Your task to perform on an android device: Add "bose soundlink" to the cart on walmart Image 0: 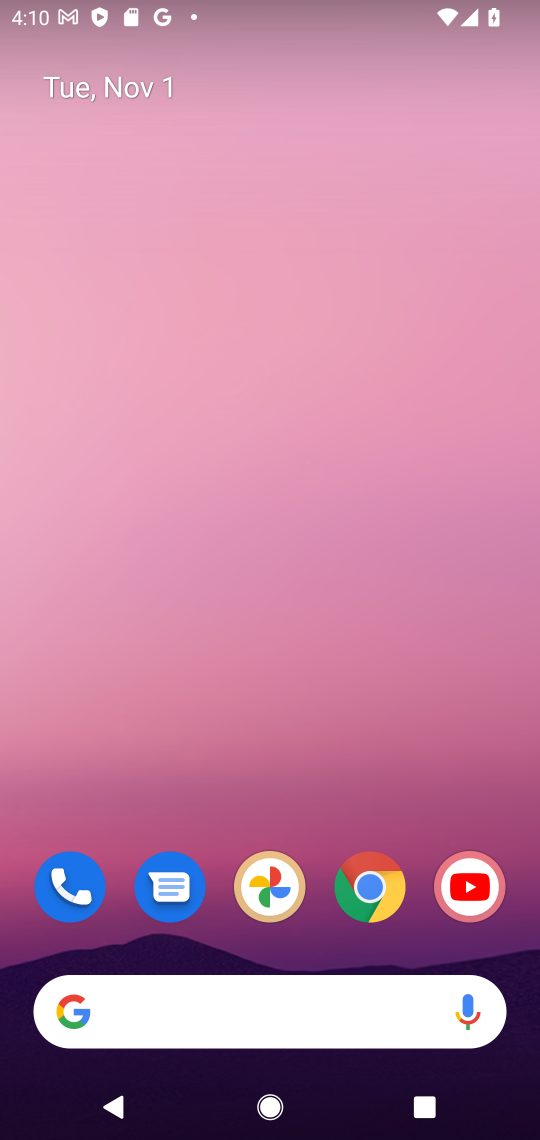
Step 0: drag from (327, 942) to (338, 130)
Your task to perform on an android device: Add "bose soundlink" to the cart on walmart Image 1: 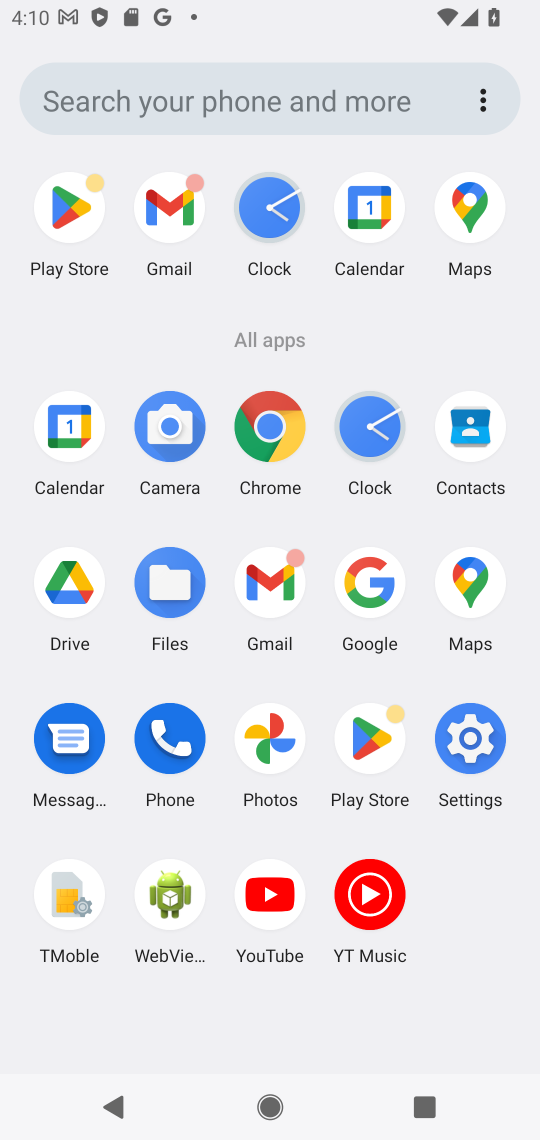
Step 1: click (279, 437)
Your task to perform on an android device: Add "bose soundlink" to the cart on walmart Image 2: 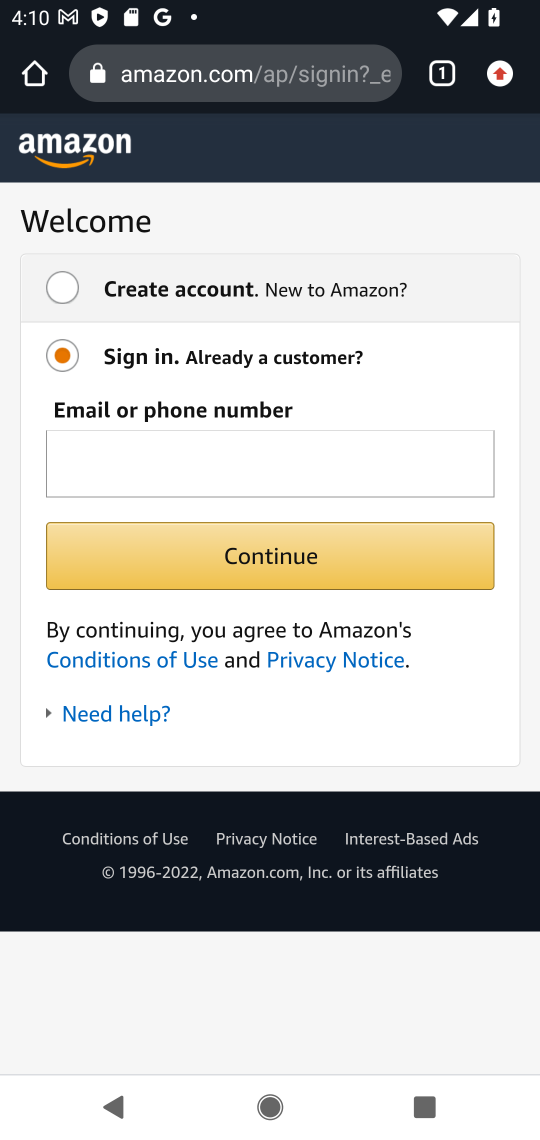
Step 2: click (297, 81)
Your task to perform on an android device: Add "bose soundlink" to the cart on walmart Image 3: 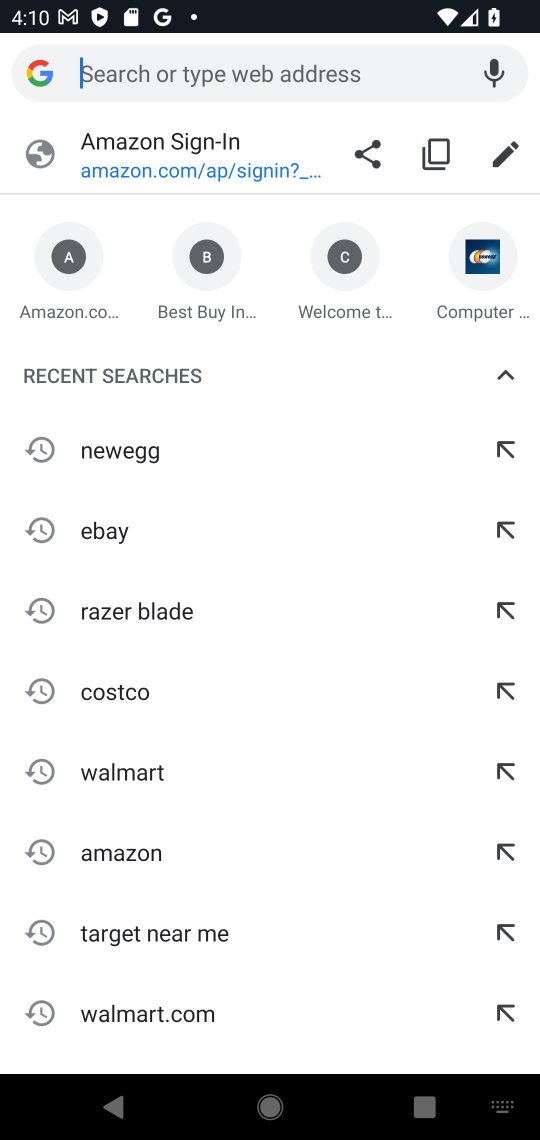
Step 3: type "walmart.com"
Your task to perform on an android device: Add "bose soundlink" to the cart on walmart Image 4: 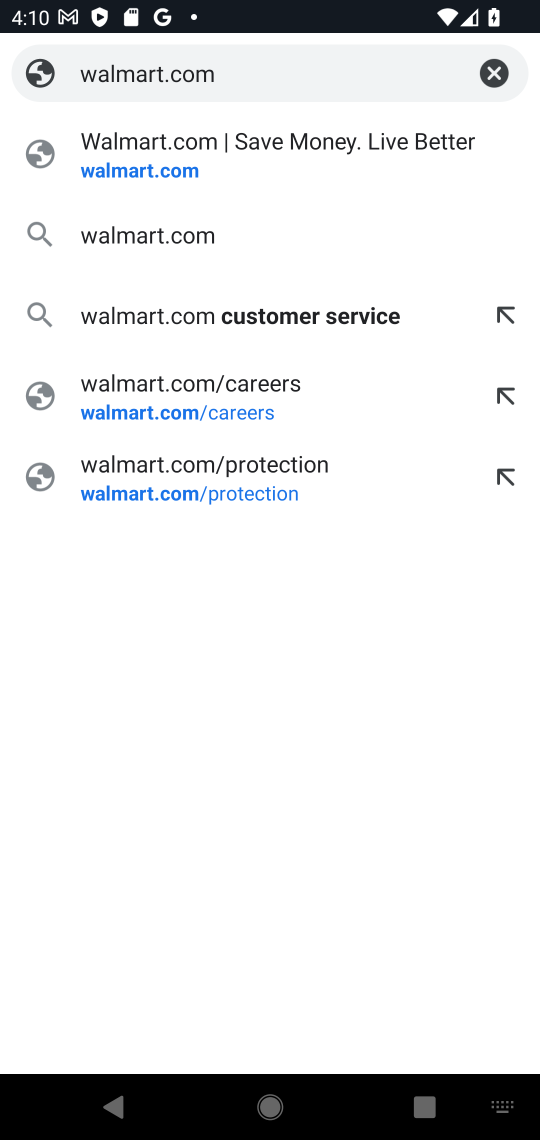
Step 4: press enter
Your task to perform on an android device: Add "bose soundlink" to the cart on walmart Image 5: 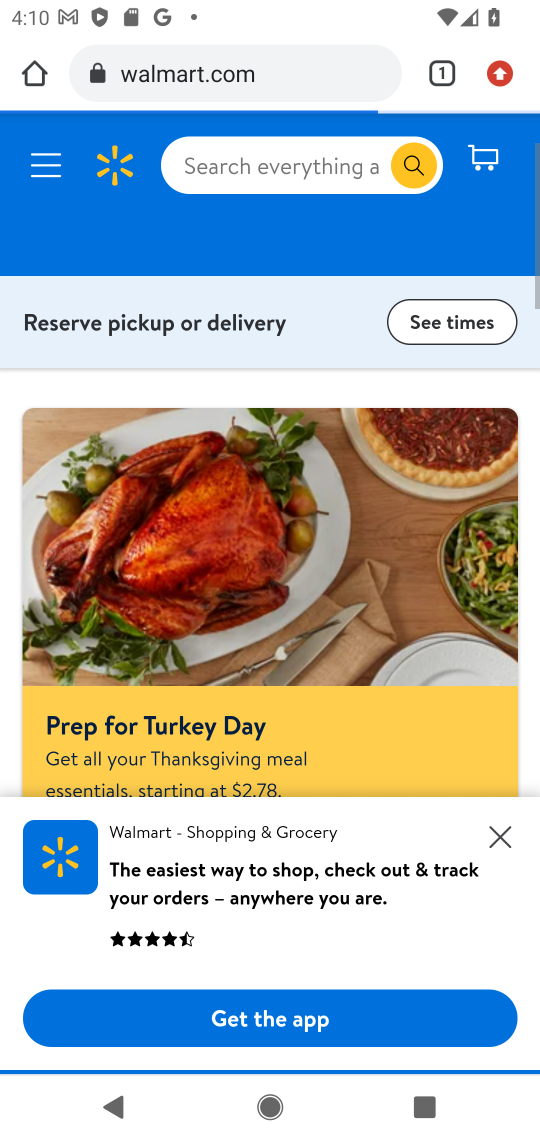
Step 5: click (316, 171)
Your task to perform on an android device: Add "bose soundlink" to the cart on walmart Image 6: 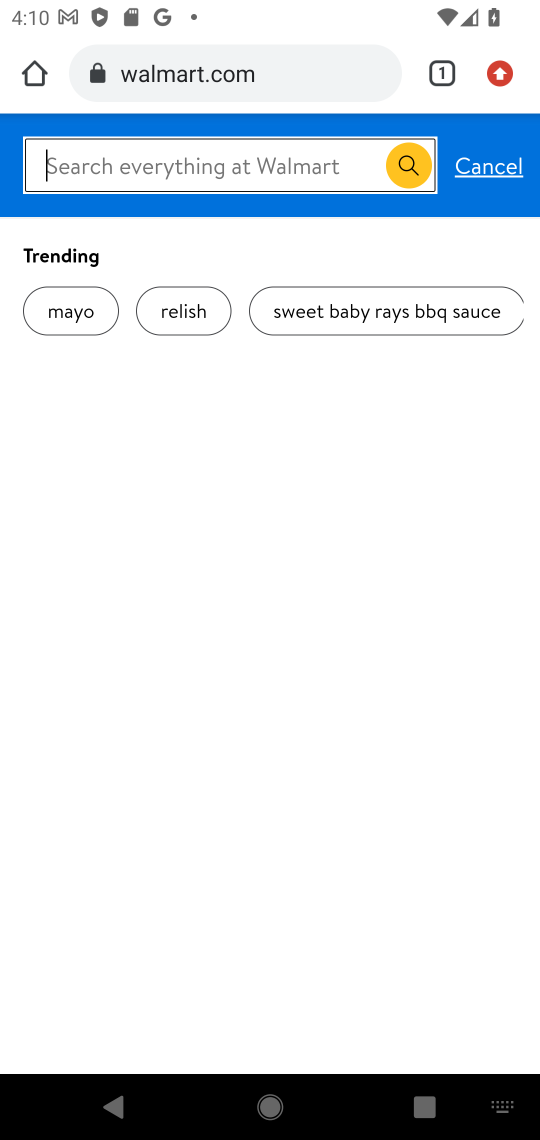
Step 6: type "bose soundlink"
Your task to perform on an android device: Add "bose soundlink" to the cart on walmart Image 7: 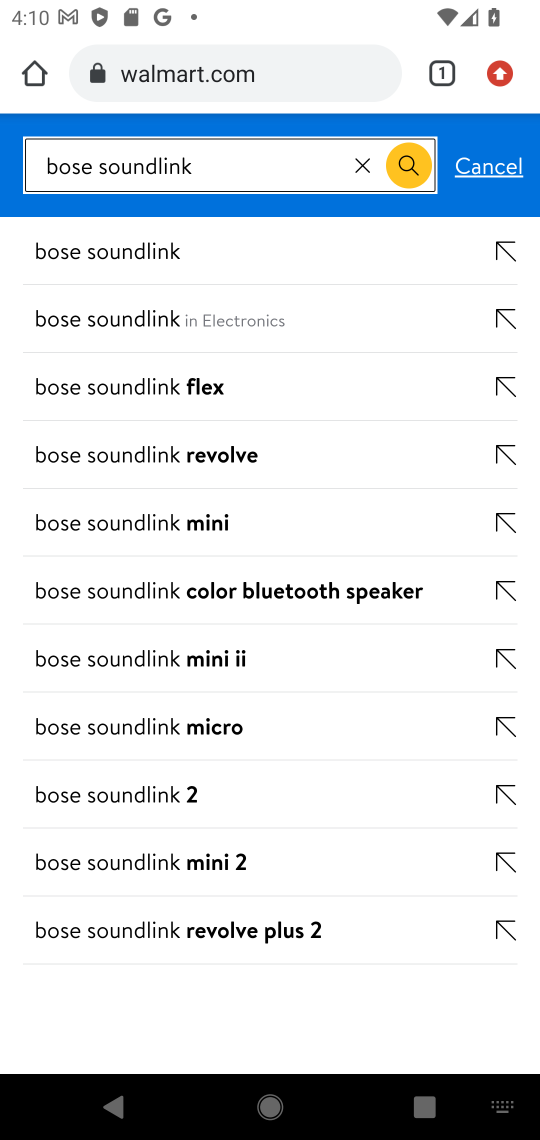
Step 7: press enter
Your task to perform on an android device: Add "bose soundlink" to the cart on walmart Image 8: 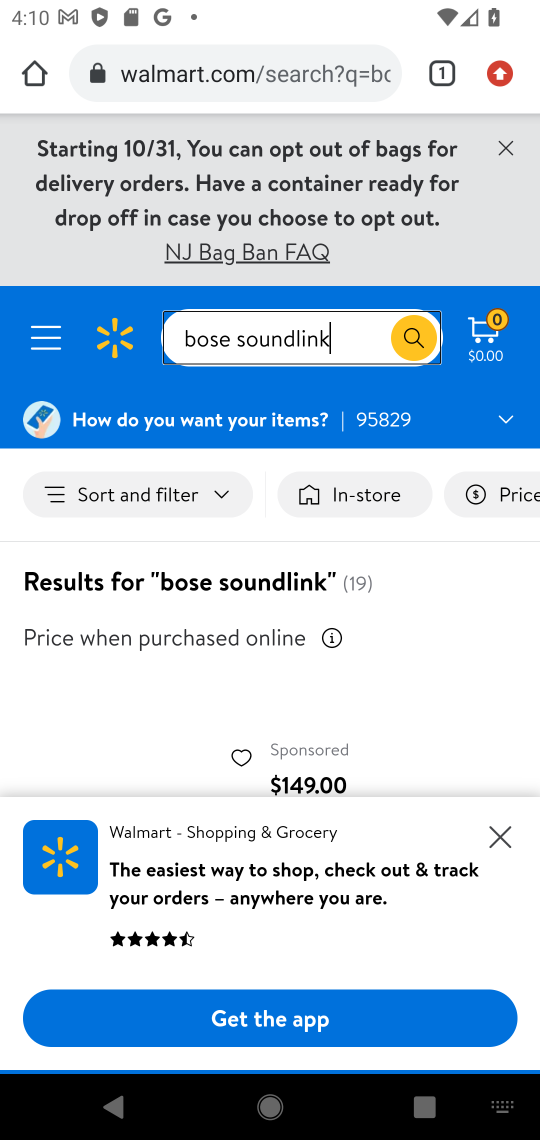
Step 8: drag from (406, 759) to (415, 205)
Your task to perform on an android device: Add "bose soundlink" to the cart on walmart Image 9: 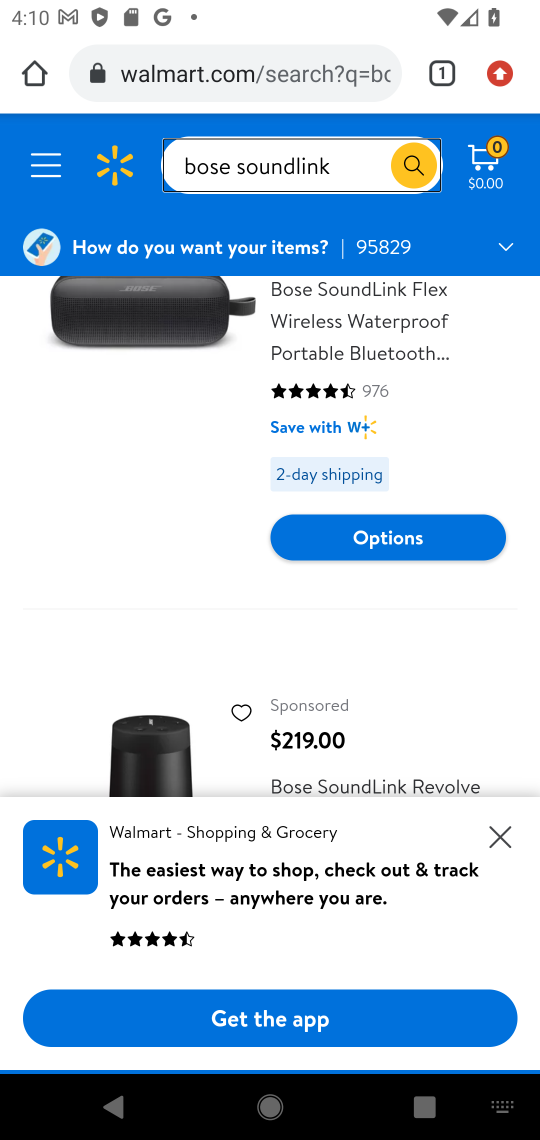
Step 9: click (506, 833)
Your task to perform on an android device: Add "bose soundlink" to the cart on walmart Image 10: 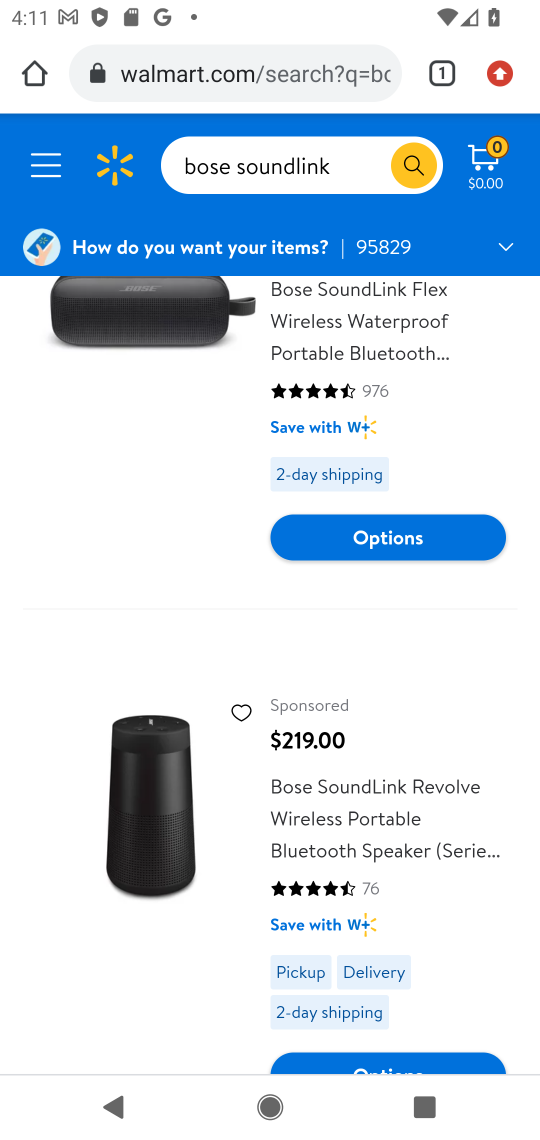
Step 10: drag from (163, 416) to (228, 254)
Your task to perform on an android device: Add "bose soundlink" to the cart on walmart Image 11: 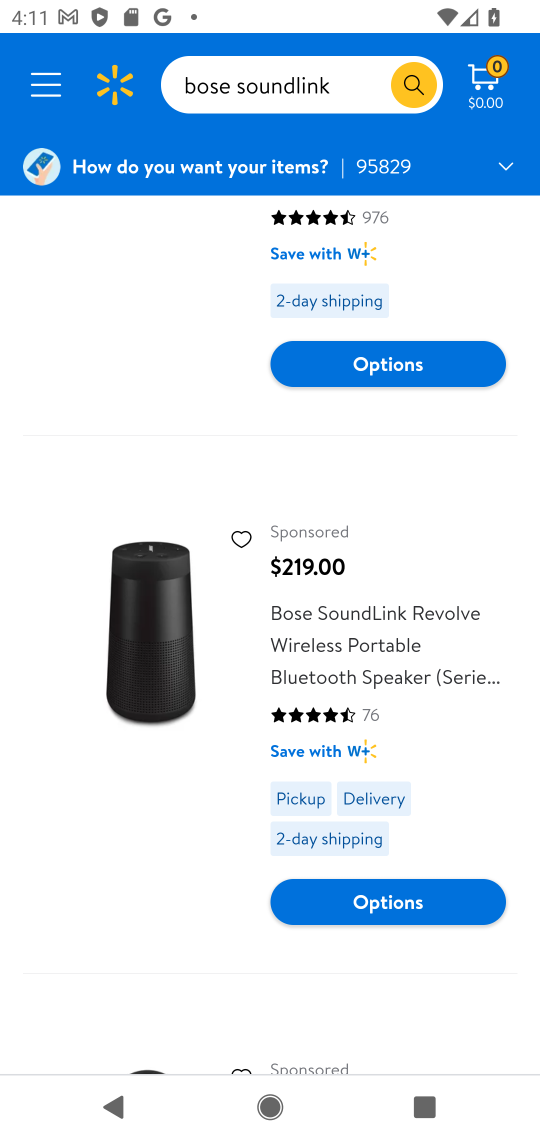
Step 11: drag from (198, 903) to (208, 323)
Your task to perform on an android device: Add "bose soundlink" to the cart on walmart Image 12: 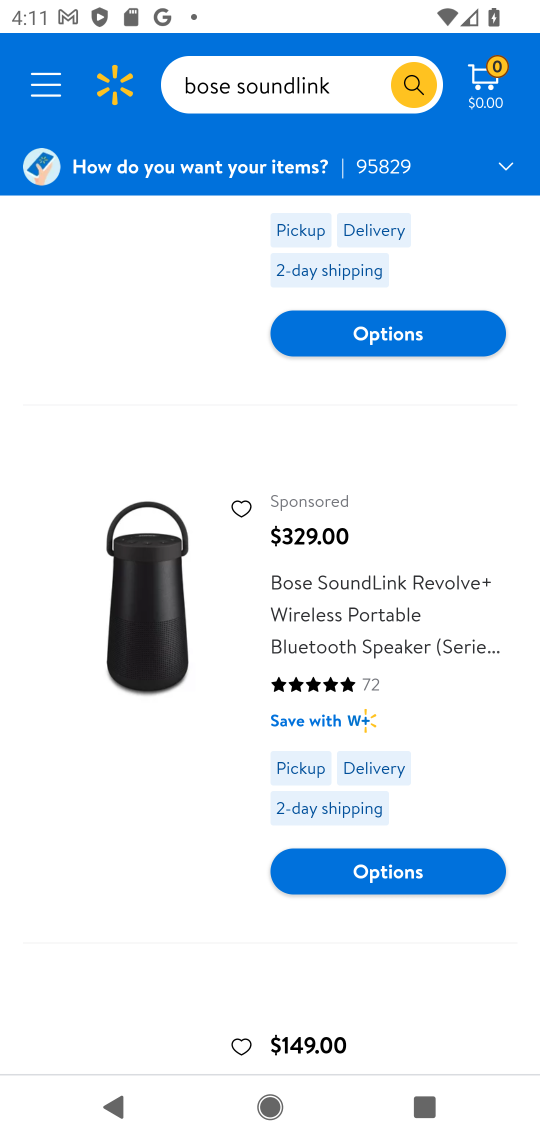
Step 12: drag from (172, 926) to (168, 238)
Your task to perform on an android device: Add "bose soundlink" to the cart on walmart Image 13: 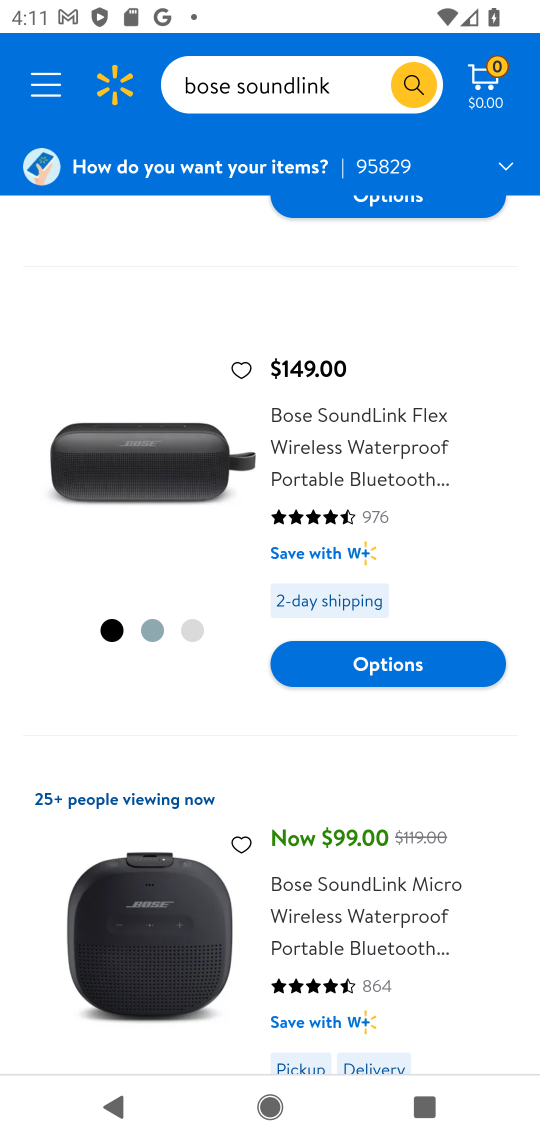
Step 13: drag from (145, 617) to (254, 1104)
Your task to perform on an android device: Add "bose soundlink" to the cart on walmart Image 14: 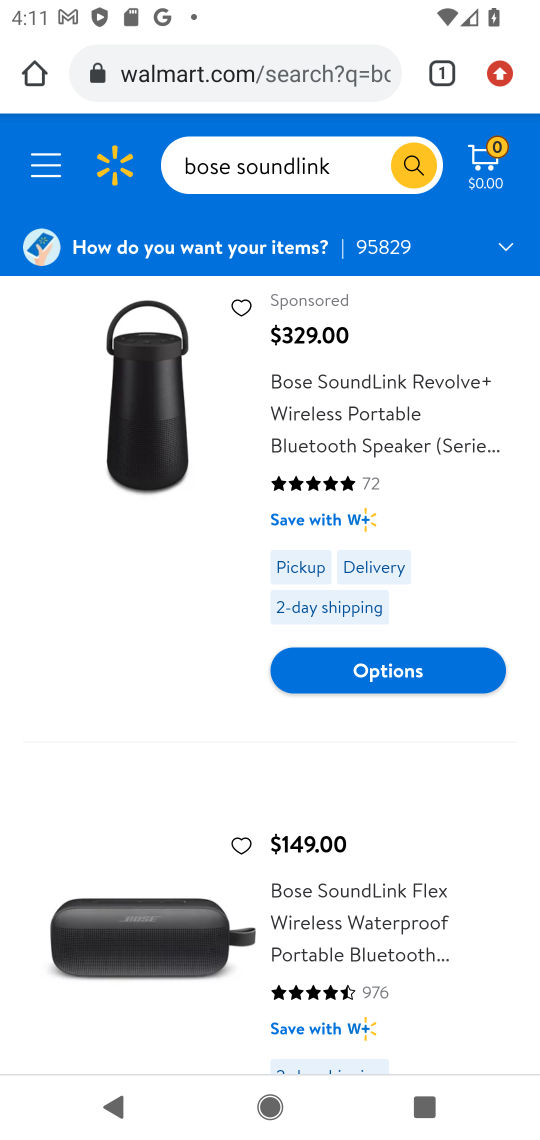
Step 14: click (360, 931)
Your task to perform on an android device: Add "bose soundlink" to the cart on walmart Image 15: 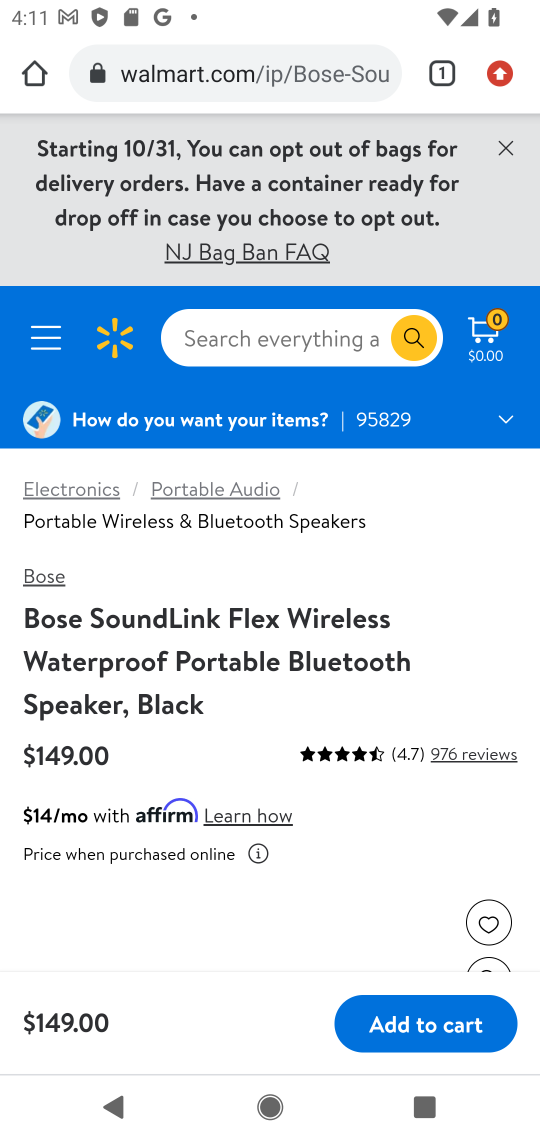
Step 15: drag from (328, 890) to (342, 421)
Your task to perform on an android device: Add "bose soundlink" to the cart on walmart Image 16: 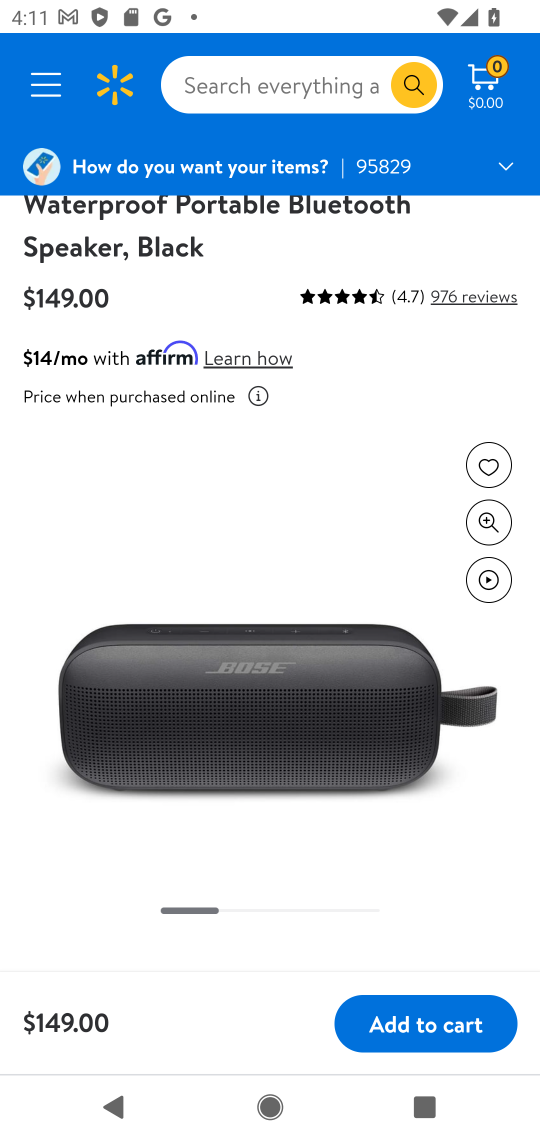
Step 16: click (422, 1022)
Your task to perform on an android device: Add "bose soundlink" to the cart on walmart Image 17: 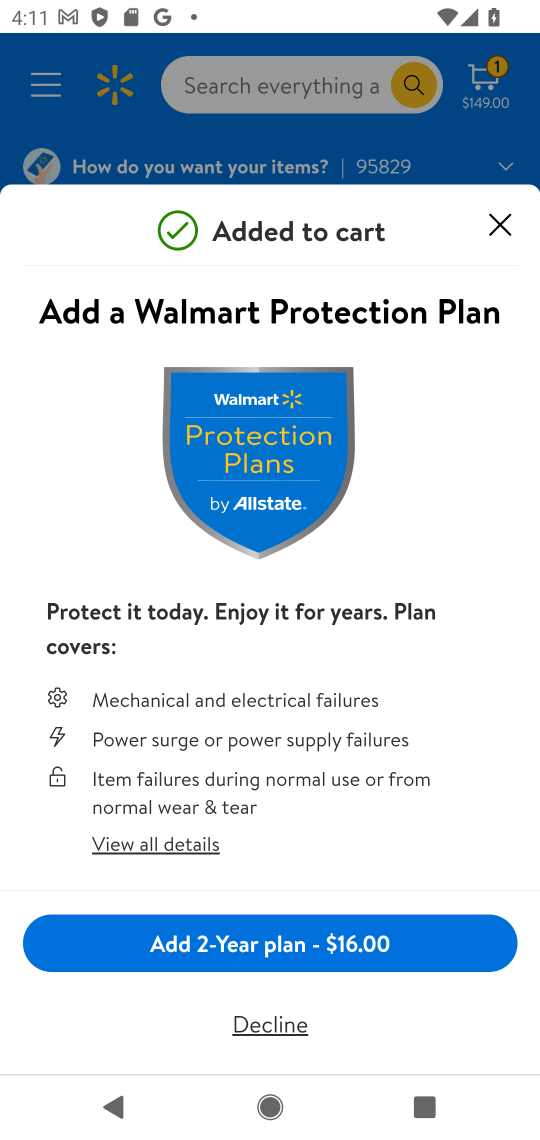
Step 17: click (497, 216)
Your task to perform on an android device: Add "bose soundlink" to the cart on walmart Image 18: 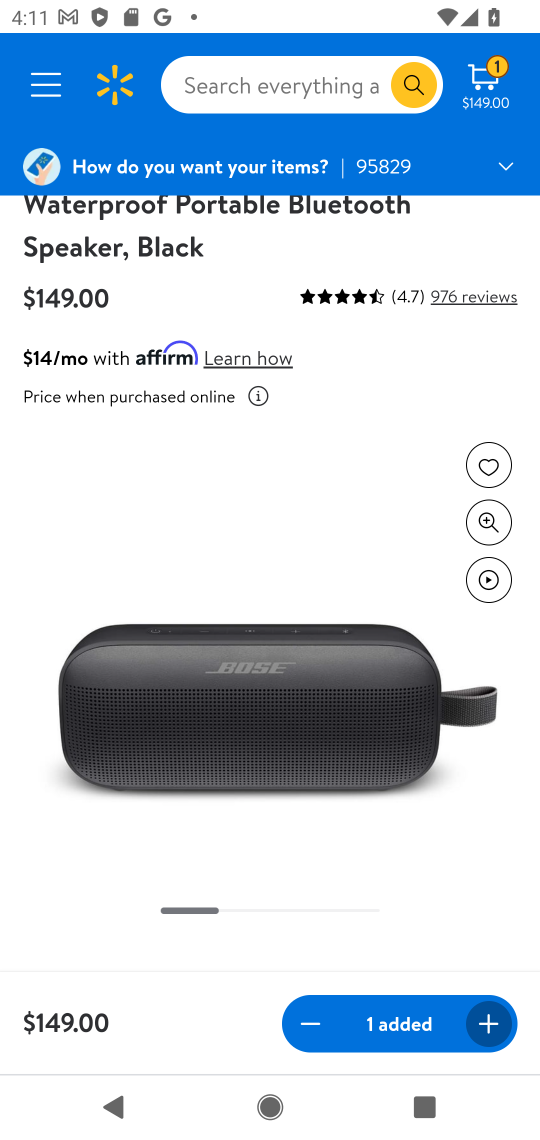
Step 18: task complete